Your task to perform on an android device: Open Yahoo.com Image 0: 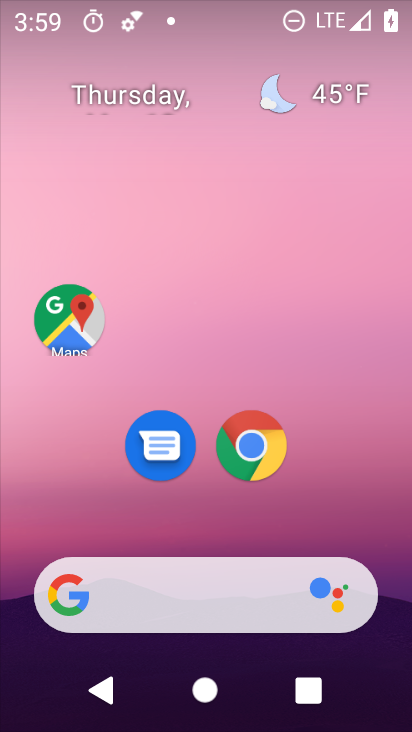
Step 0: click (256, 446)
Your task to perform on an android device: Open Yahoo.com Image 1: 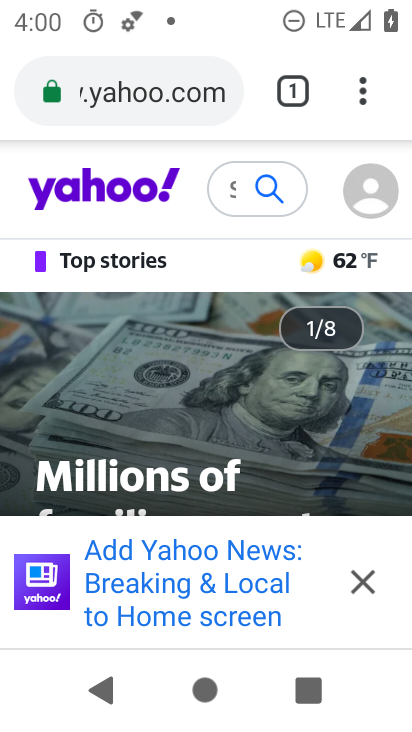
Step 1: task complete